Your task to perform on an android device: set the stopwatch Image 0: 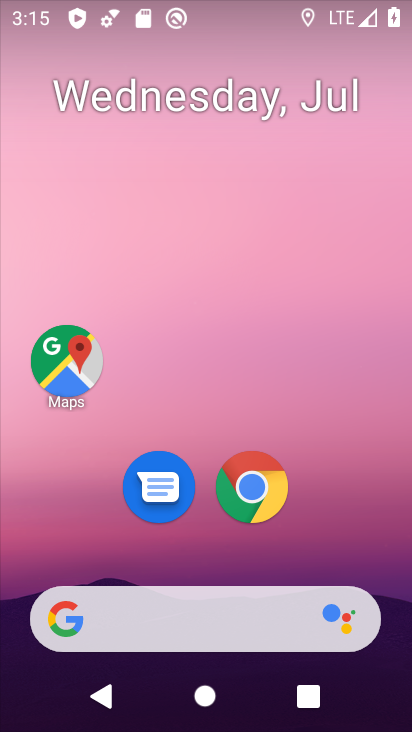
Step 0: drag from (206, 467) to (216, 12)
Your task to perform on an android device: set the stopwatch Image 1: 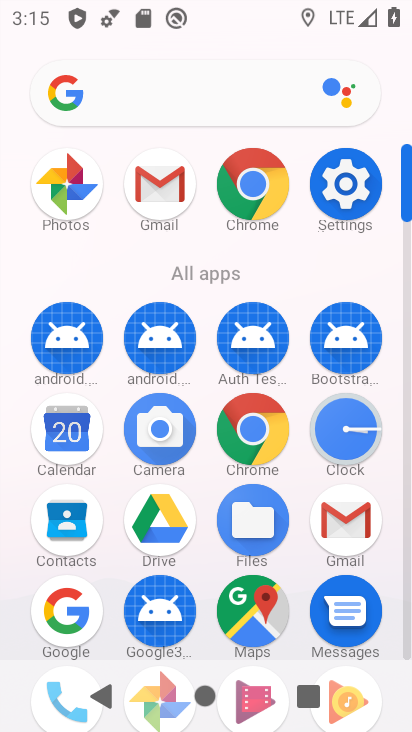
Step 1: click (335, 420)
Your task to perform on an android device: set the stopwatch Image 2: 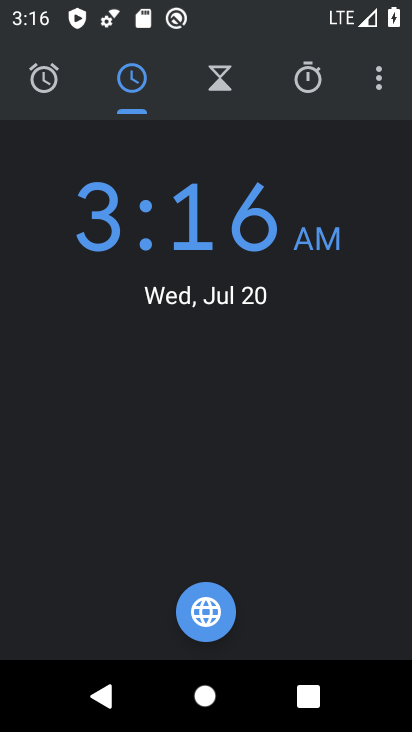
Step 2: click (318, 74)
Your task to perform on an android device: set the stopwatch Image 3: 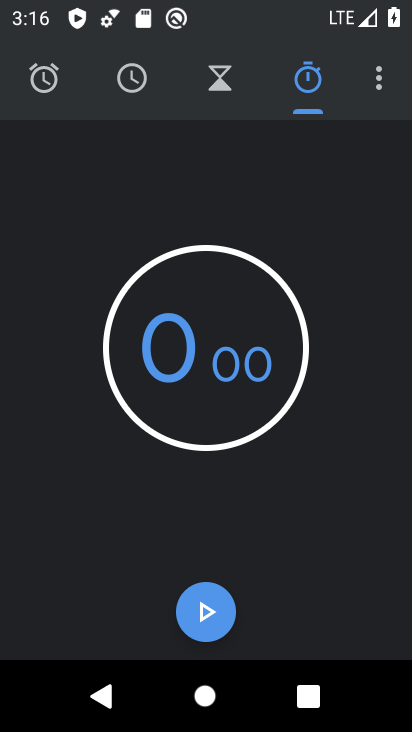
Step 3: click (166, 390)
Your task to perform on an android device: set the stopwatch Image 4: 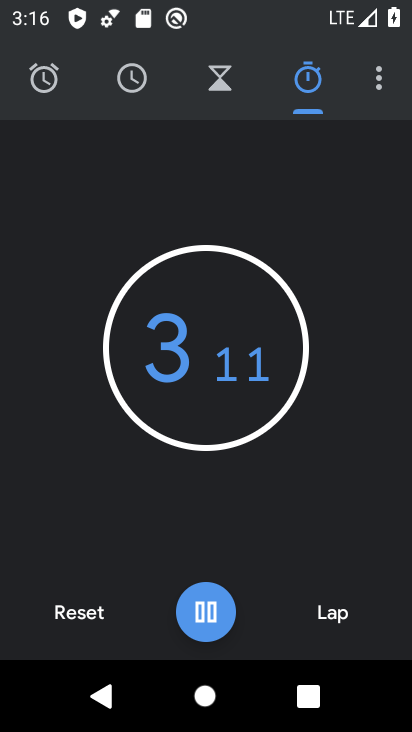
Step 4: click (196, 373)
Your task to perform on an android device: set the stopwatch Image 5: 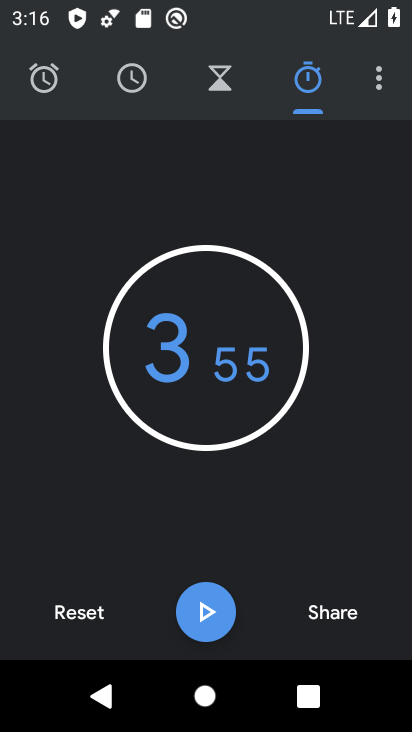
Step 5: task complete